Your task to perform on an android device: Go to display settings Image 0: 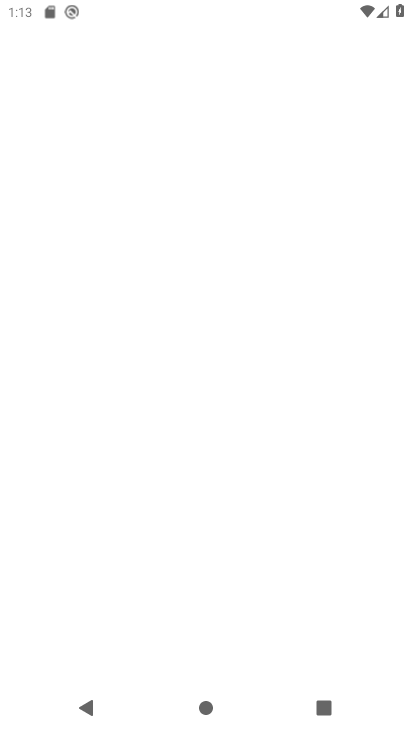
Step 0: press home button
Your task to perform on an android device: Go to display settings Image 1: 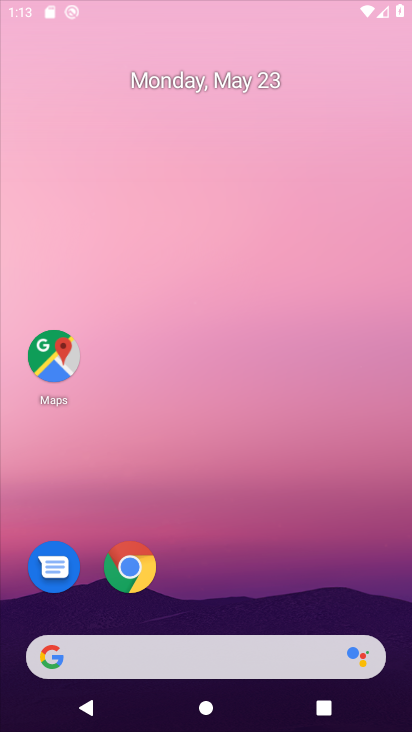
Step 1: drag from (277, 529) to (254, 114)
Your task to perform on an android device: Go to display settings Image 2: 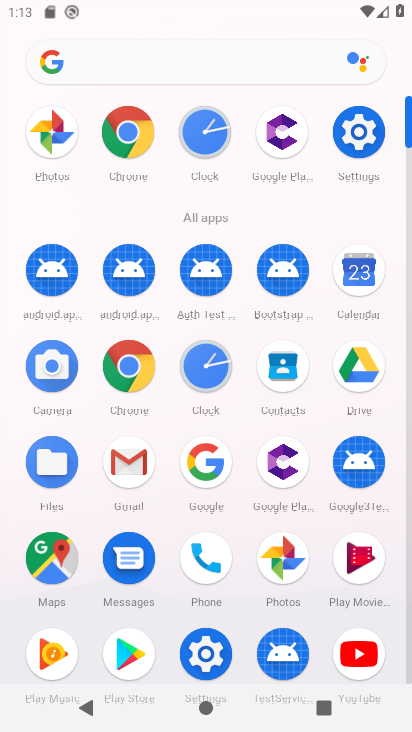
Step 2: click (363, 153)
Your task to perform on an android device: Go to display settings Image 3: 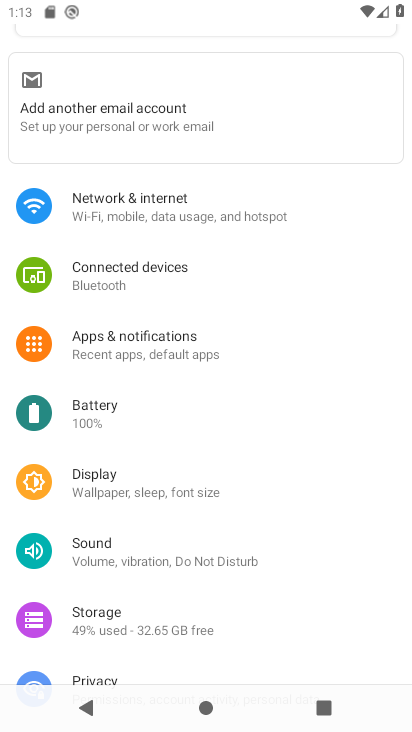
Step 3: click (133, 499)
Your task to perform on an android device: Go to display settings Image 4: 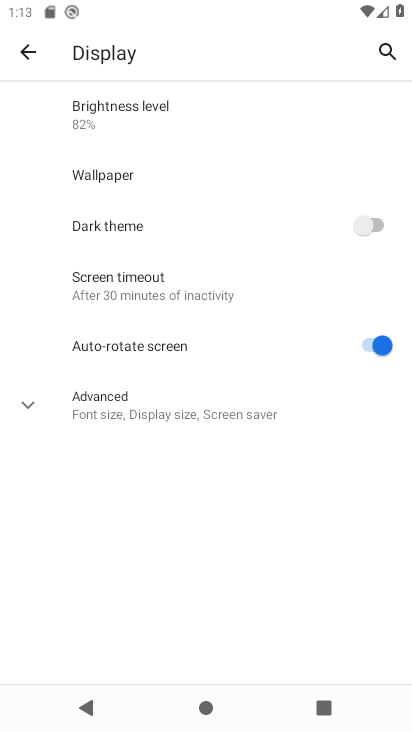
Step 4: task complete